Your task to perform on an android device: Open Youtube and go to "Your channel" Image 0: 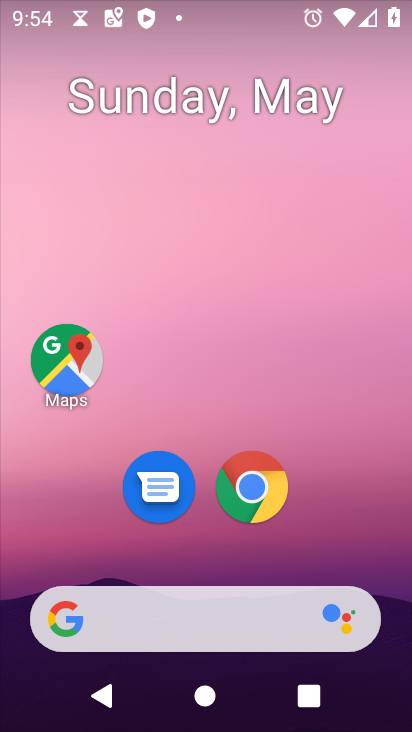
Step 0: drag from (355, 431) to (343, 127)
Your task to perform on an android device: Open Youtube and go to "Your channel" Image 1: 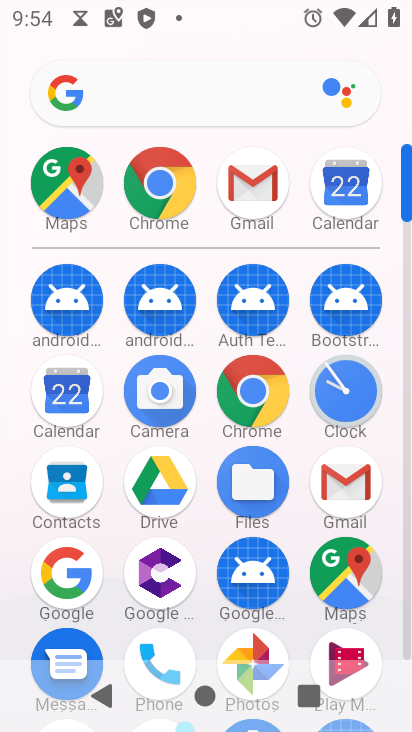
Step 1: drag from (384, 527) to (339, 121)
Your task to perform on an android device: Open Youtube and go to "Your channel" Image 2: 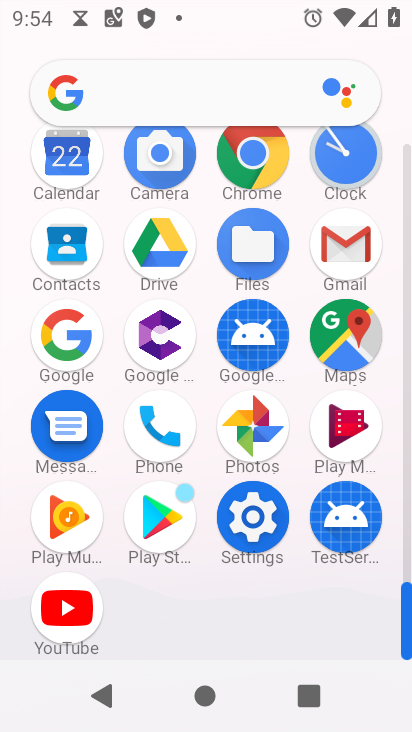
Step 2: click (73, 618)
Your task to perform on an android device: Open Youtube and go to "Your channel" Image 3: 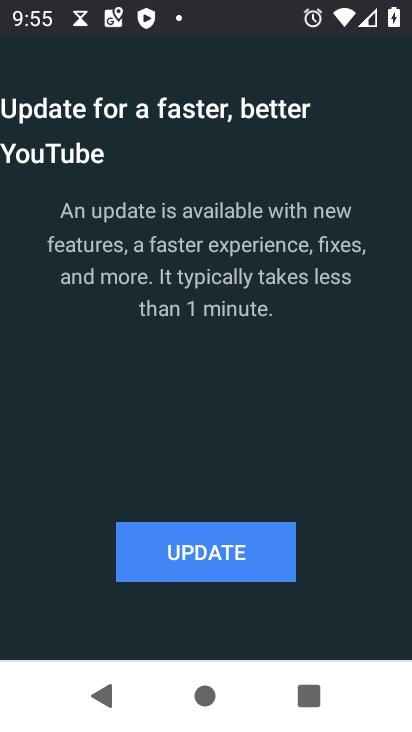
Step 3: click (168, 561)
Your task to perform on an android device: Open Youtube and go to "Your channel" Image 4: 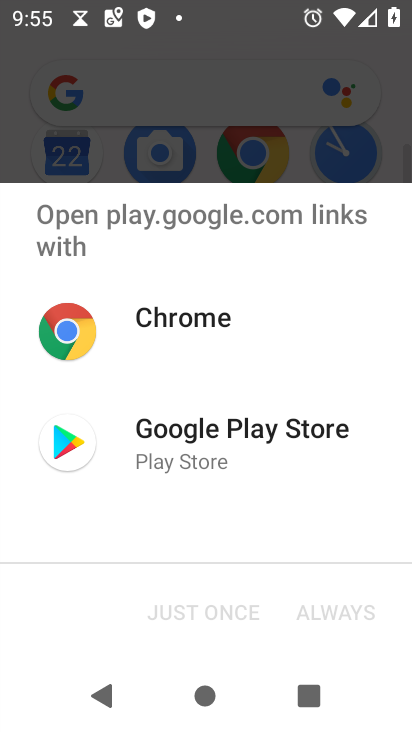
Step 4: click (126, 458)
Your task to perform on an android device: Open Youtube and go to "Your channel" Image 5: 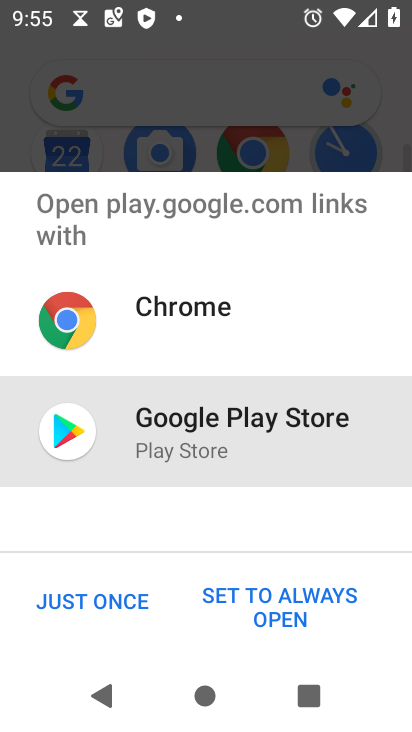
Step 5: click (108, 603)
Your task to perform on an android device: Open Youtube and go to "Your channel" Image 6: 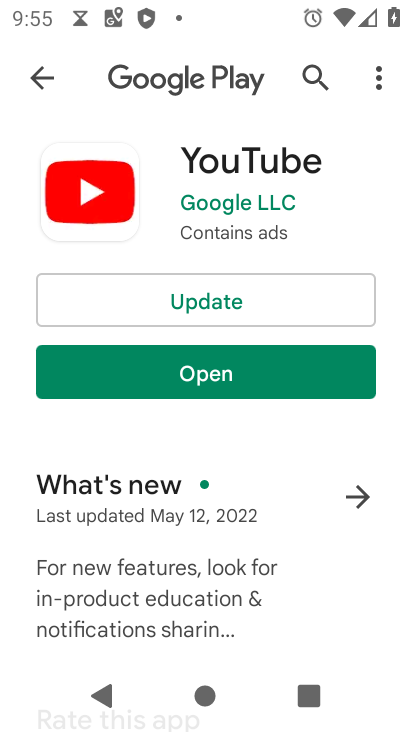
Step 6: click (192, 312)
Your task to perform on an android device: Open Youtube and go to "Your channel" Image 7: 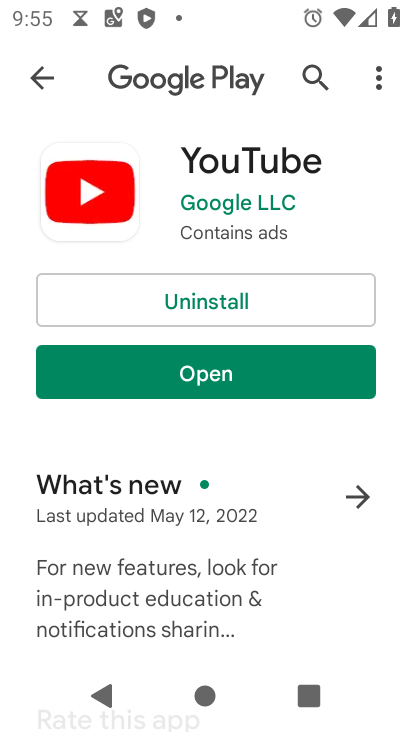
Step 7: click (218, 369)
Your task to perform on an android device: Open Youtube and go to "Your channel" Image 8: 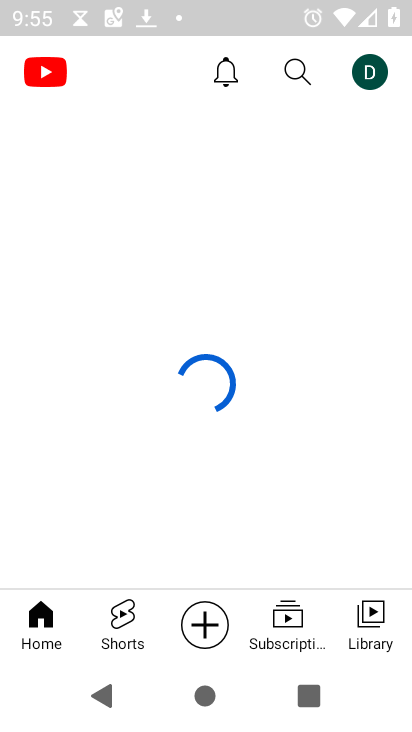
Step 8: click (373, 71)
Your task to perform on an android device: Open Youtube and go to "Your channel" Image 9: 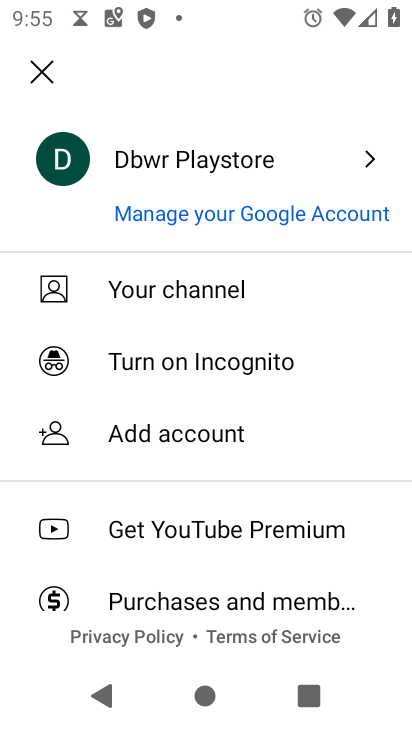
Step 9: click (160, 281)
Your task to perform on an android device: Open Youtube and go to "Your channel" Image 10: 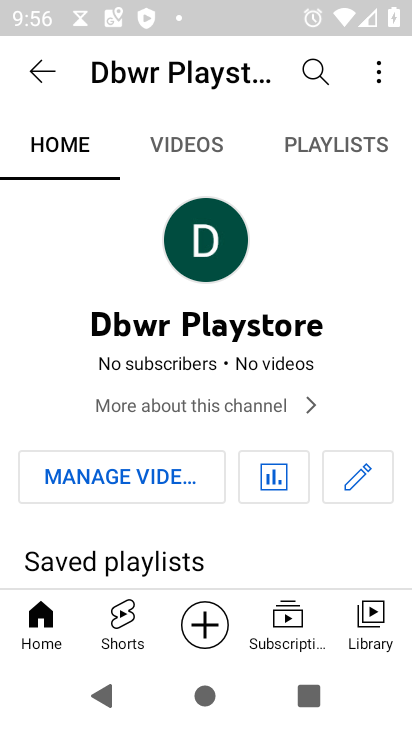
Step 10: click (46, 72)
Your task to perform on an android device: Open Youtube and go to "Your channel" Image 11: 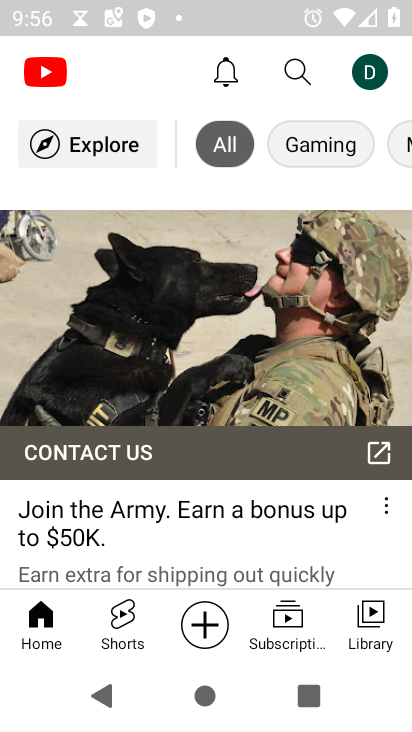
Step 11: click (353, 72)
Your task to perform on an android device: Open Youtube and go to "Your channel" Image 12: 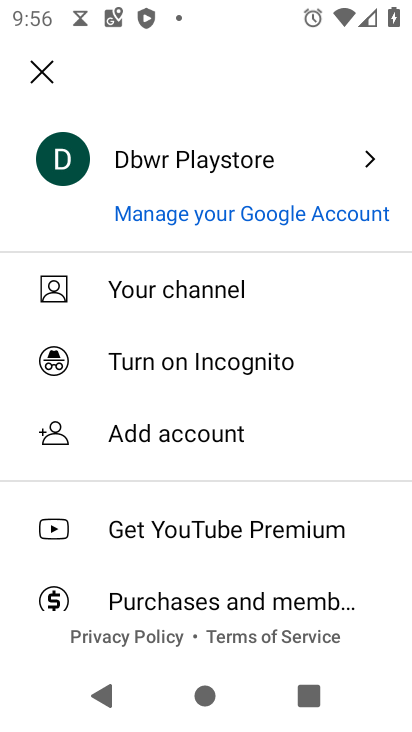
Step 12: click (211, 285)
Your task to perform on an android device: Open Youtube and go to "Your channel" Image 13: 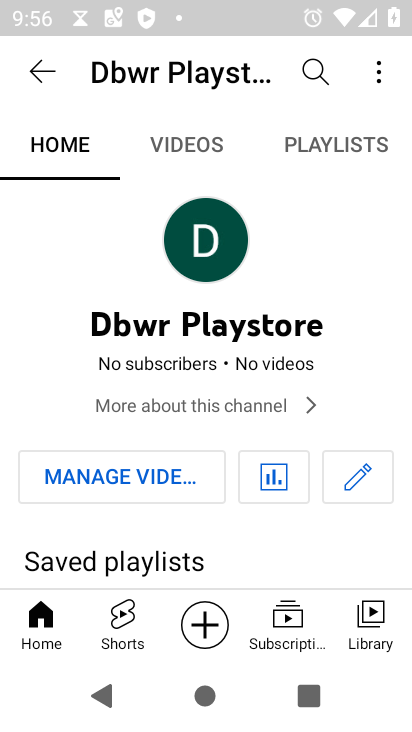
Step 13: task complete